Your task to perform on an android device: move an email to a new category in the gmail app Image 0: 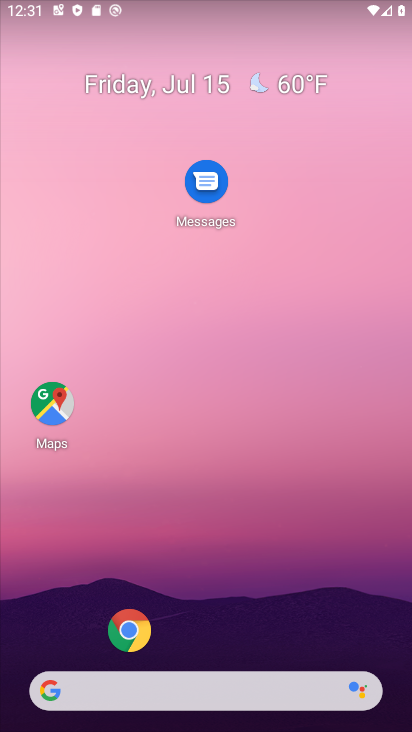
Step 0: drag from (70, 584) to (152, 187)
Your task to perform on an android device: move an email to a new category in the gmail app Image 1: 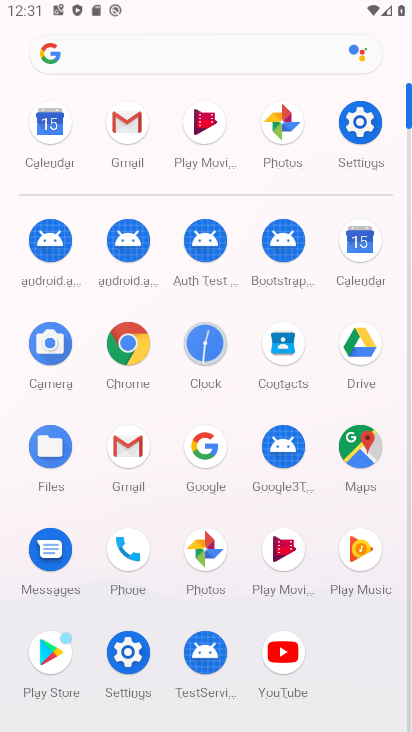
Step 1: click (120, 142)
Your task to perform on an android device: move an email to a new category in the gmail app Image 2: 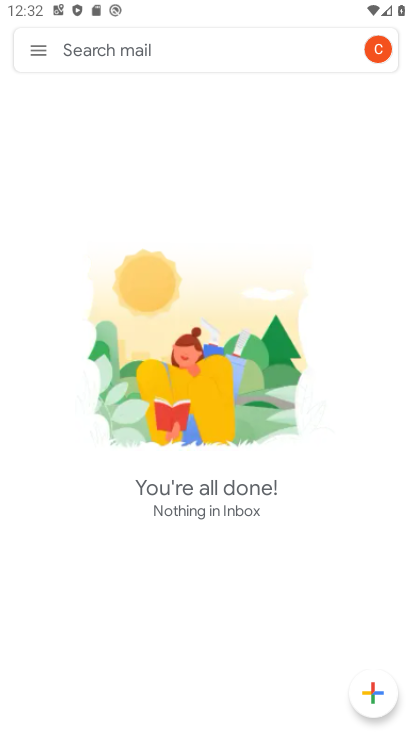
Step 2: click (35, 44)
Your task to perform on an android device: move an email to a new category in the gmail app Image 3: 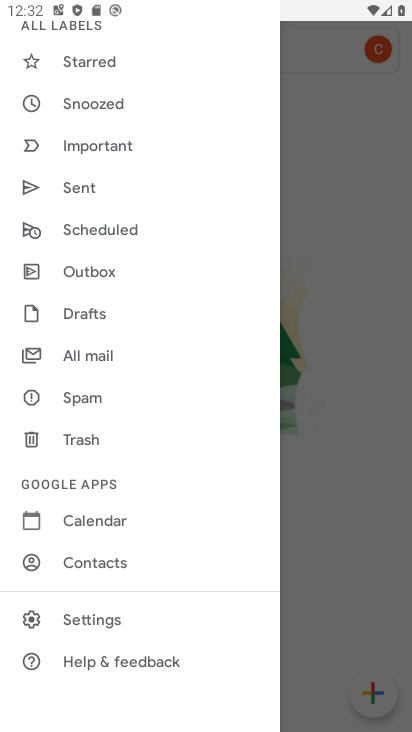
Step 3: drag from (327, 247) to (335, 146)
Your task to perform on an android device: move an email to a new category in the gmail app Image 4: 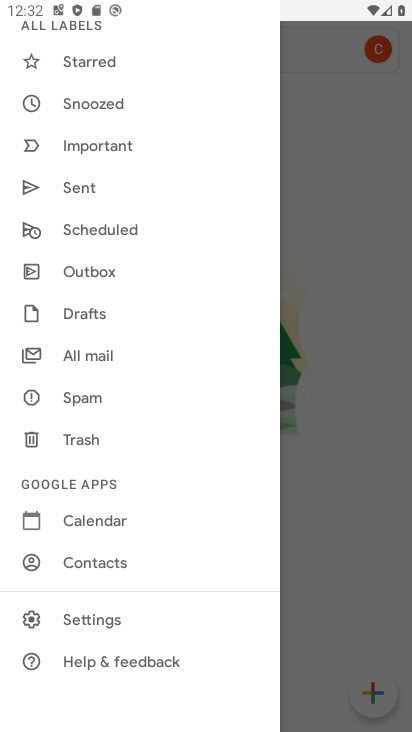
Step 4: drag from (155, 196) to (157, 69)
Your task to perform on an android device: move an email to a new category in the gmail app Image 5: 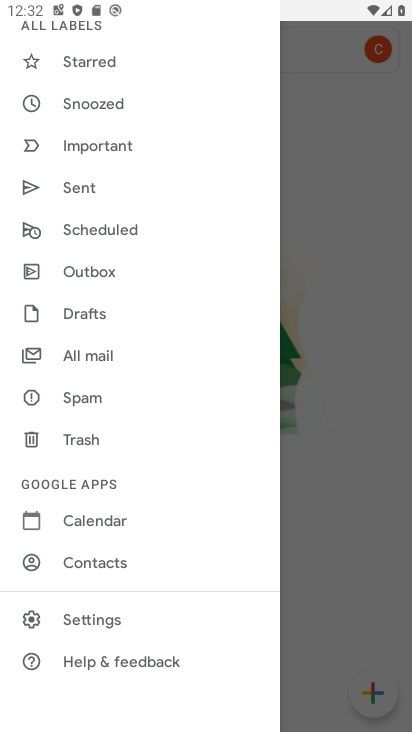
Step 5: drag from (152, 64) to (179, 363)
Your task to perform on an android device: move an email to a new category in the gmail app Image 6: 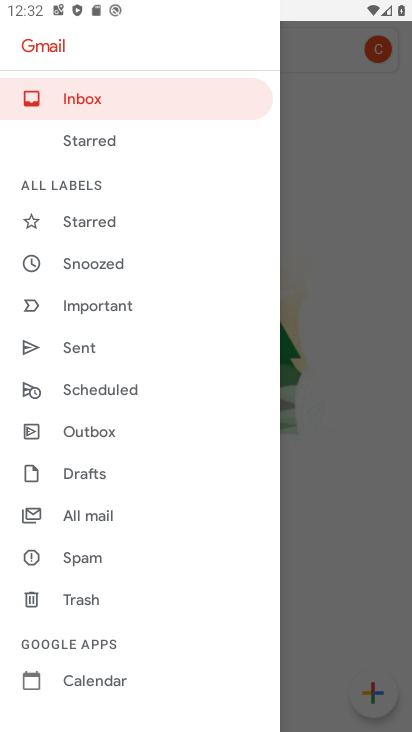
Step 6: click (123, 111)
Your task to perform on an android device: move an email to a new category in the gmail app Image 7: 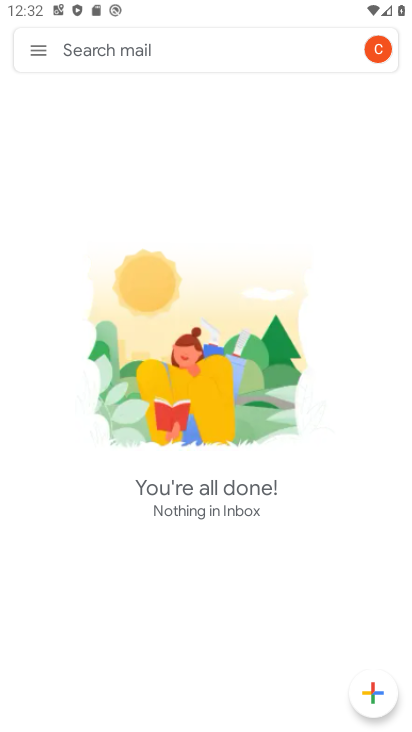
Step 7: task complete